Your task to perform on an android device: read, delete, or share a saved page in the chrome app Image 0: 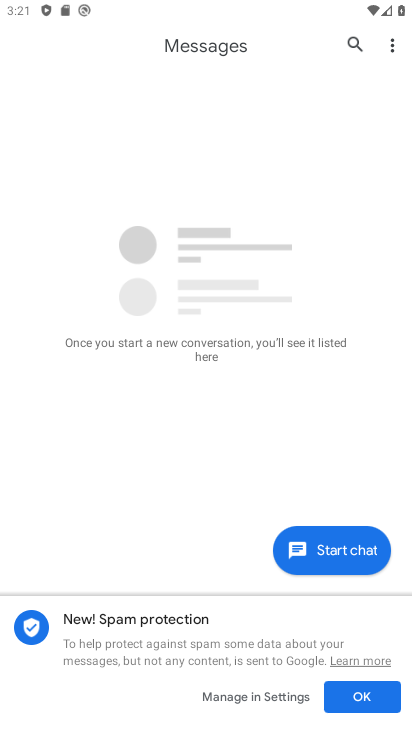
Step 0: click (198, 681)
Your task to perform on an android device: read, delete, or share a saved page in the chrome app Image 1: 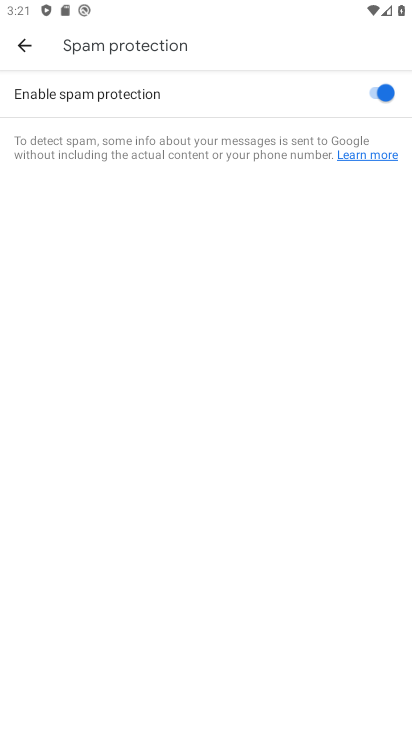
Step 1: press home button
Your task to perform on an android device: read, delete, or share a saved page in the chrome app Image 2: 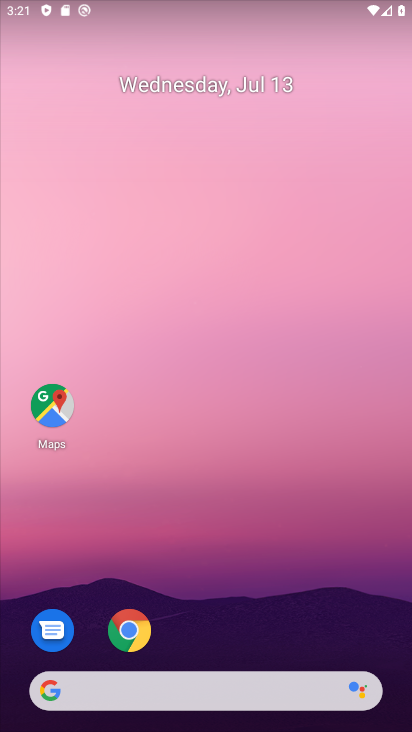
Step 2: click (126, 632)
Your task to perform on an android device: read, delete, or share a saved page in the chrome app Image 3: 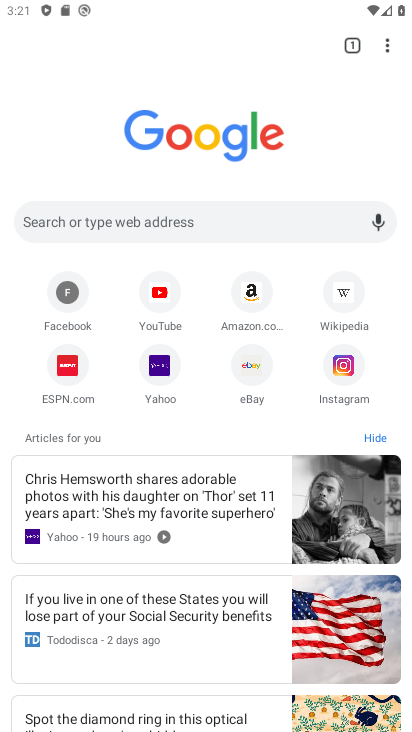
Step 3: click (391, 45)
Your task to perform on an android device: read, delete, or share a saved page in the chrome app Image 4: 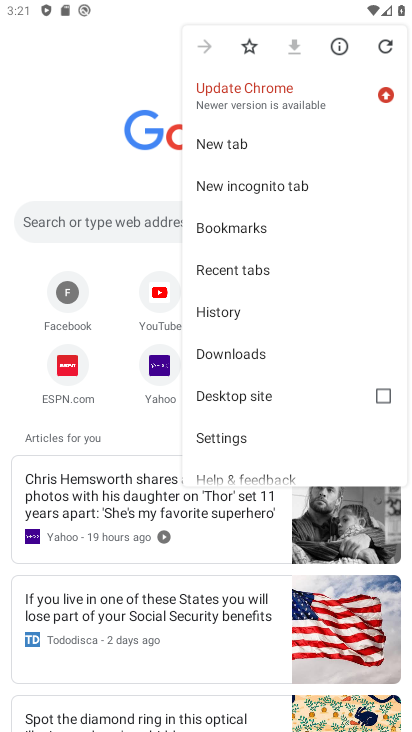
Step 4: click (242, 352)
Your task to perform on an android device: read, delete, or share a saved page in the chrome app Image 5: 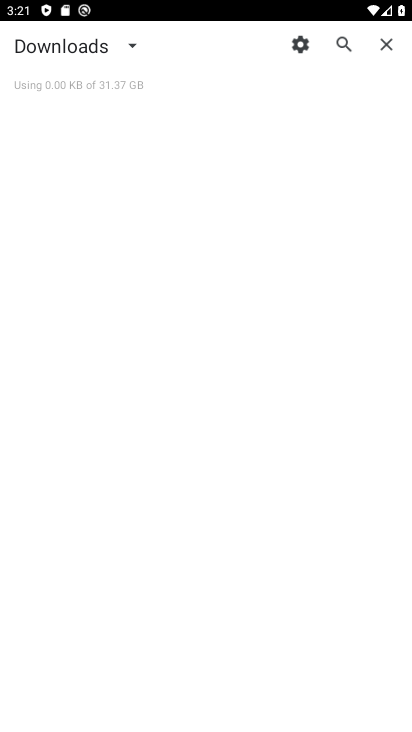
Step 5: task complete